Your task to perform on an android device: Search for Italian restaurants on Maps Image 0: 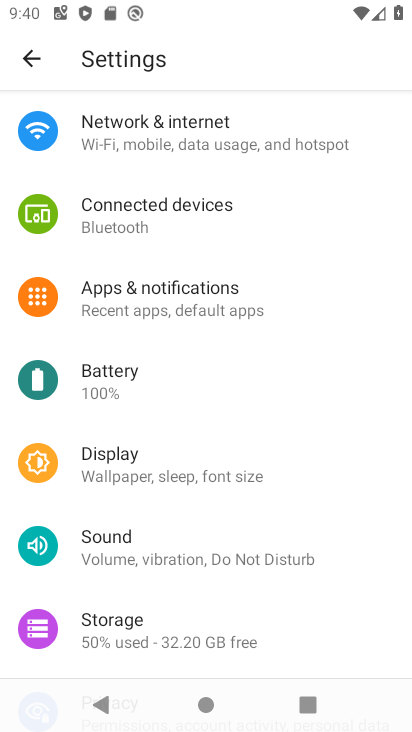
Step 0: press home button
Your task to perform on an android device: Search for Italian restaurants on Maps Image 1: 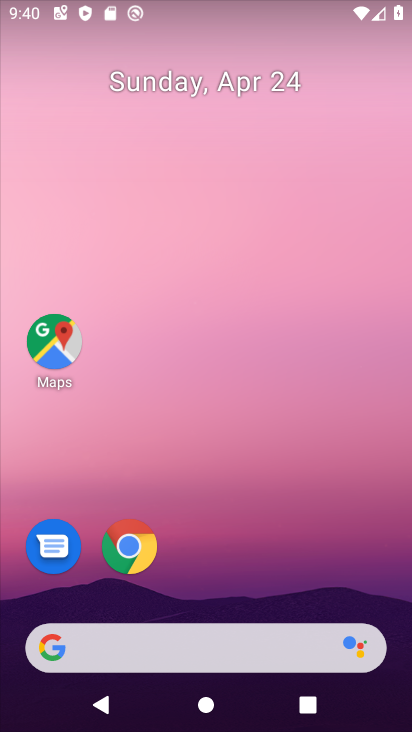
Step 1: click (62, 367)
Your task to perform on an android device: Search for Italian restaurants on Maps Image 2: 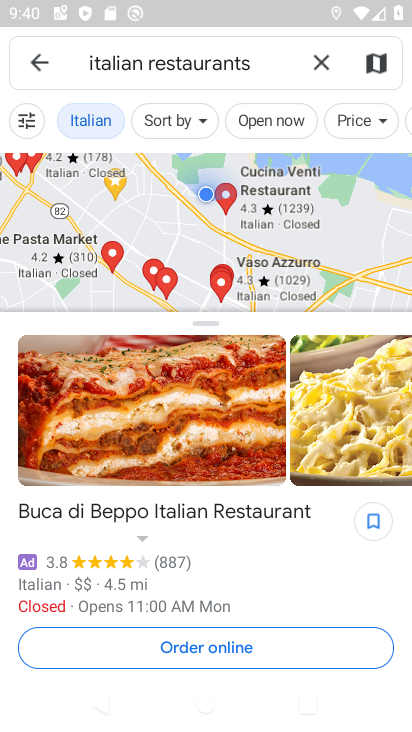
Step 2: task complete